Your task to perform on an android device: Add macbook air to the cart on newegg, then select checkout. Image 0: 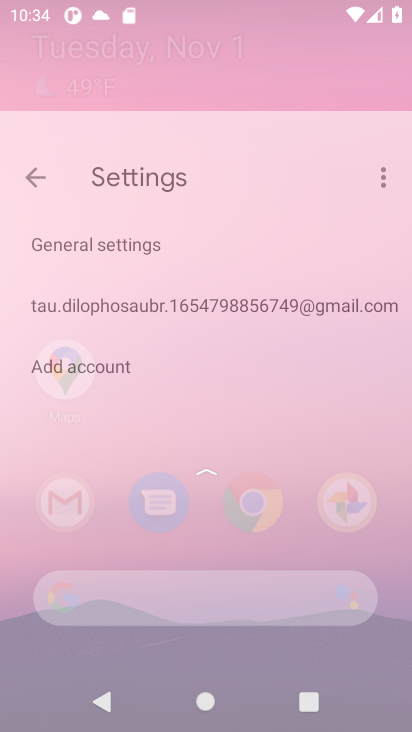
Step 0: press home button
Your task to perform on an android device: Add macbook air to the cart on newegg, then select checkout. Image 1: 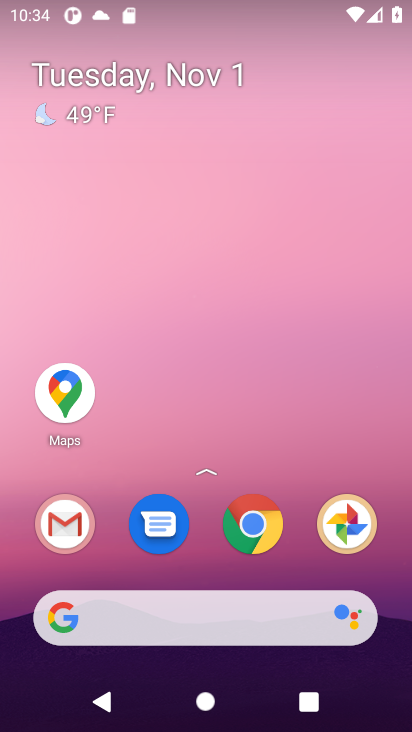
Step 1: click (85, 612)
Your task to perform on an android device: Add macbook air to the cart on newegg, then select checkout. Image 2: 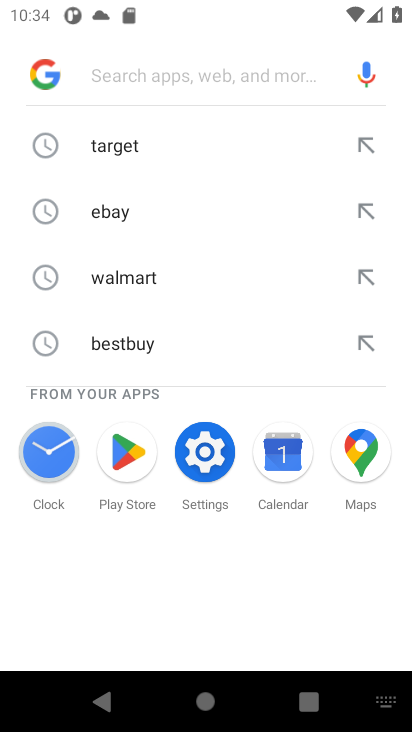
Step 2: type "newegg"
Your task to perform on an android device: Add macbook air to the cart on newegg, then select checkout. Image 3: 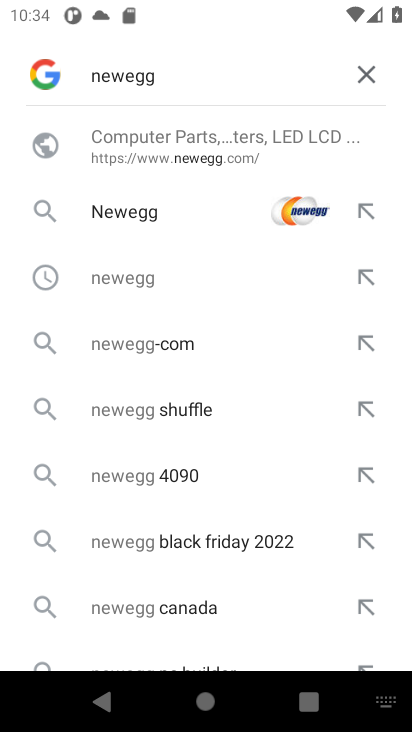
Step 3: press enter
Your task to perform on an android device: Add macbook air to the cart on newegg, then select checkout. Image 4: 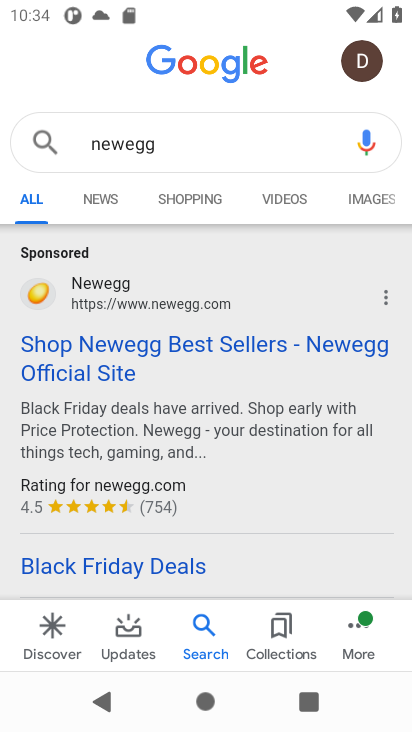
Step 4: click (124, 348)
Your task to perform on an android device: Add macbook air to the cart on newegg, then select checkout. Image 5: 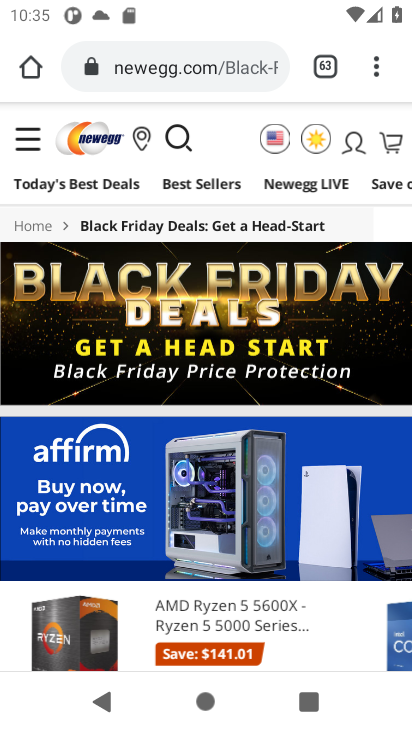
Step 5: click (355, 140)
Your task to perform on an android device: Add macbook air to the cart on newegg, then select checkout. Image 6: 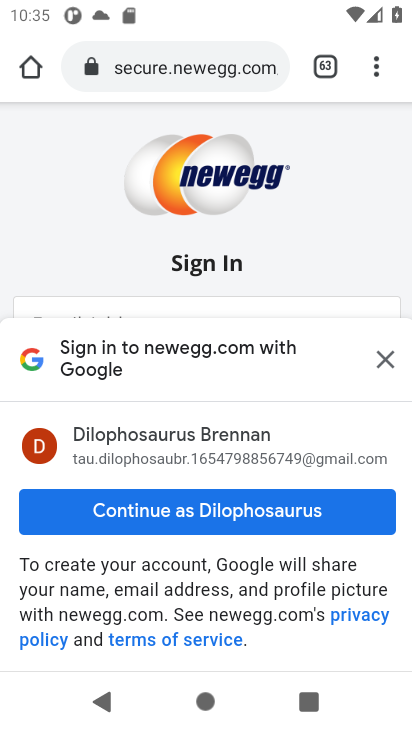
Step 6: click (256, 512)
Your task to perform on an android device: Add macbook air to the cart on newegg, then select checkout. Image 7: 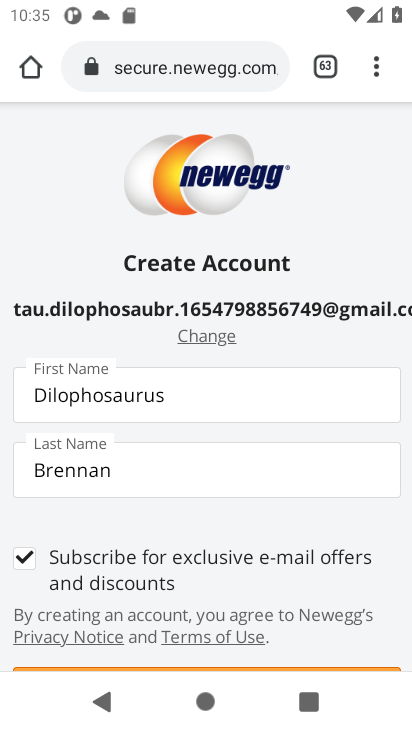
Step 7: drag from (253, 572) to (253, 187)
Your task to perform on an android device: Add macbook air to the cart on newegg, then select checkout. Image 8: 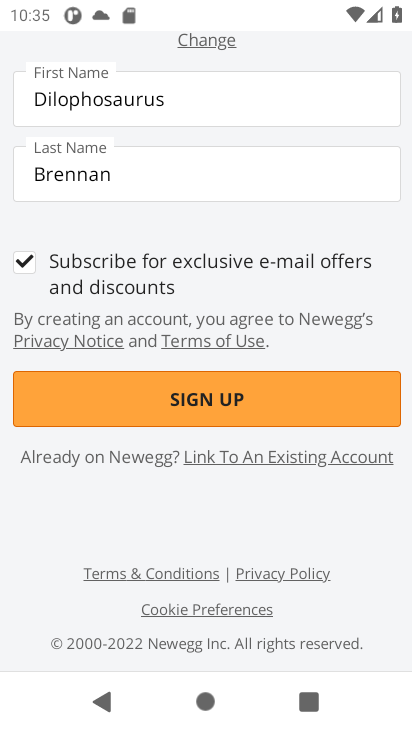
Step 8: click (228, 403)
Your task to perform on an android device: Add macbook air to the cart on newegg, then select checkout. Image 9: 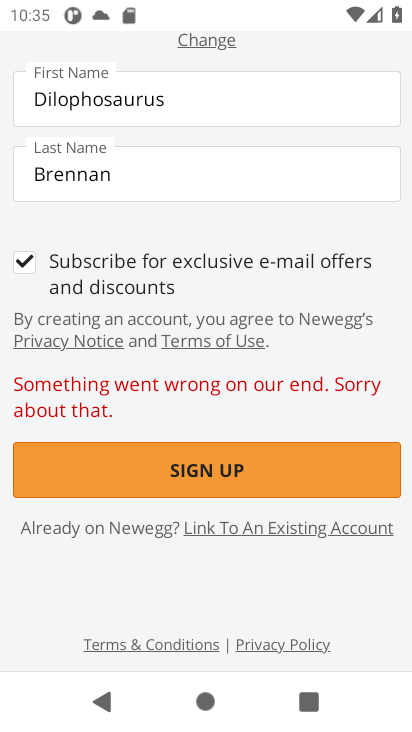
Step 9: task complete